Your task to perform on an android device: toggle wifi Image 0: 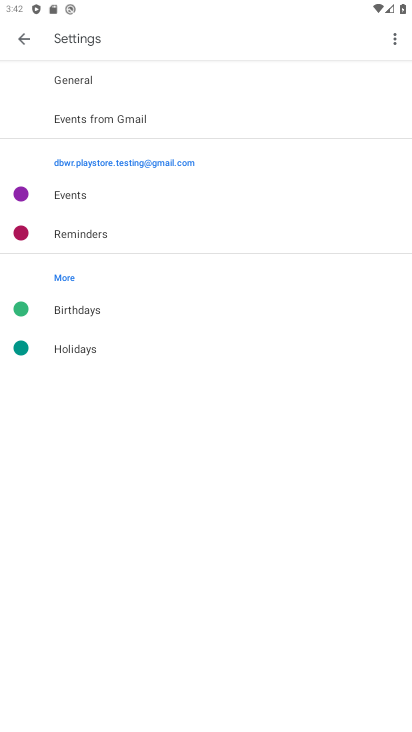
Step 0: press back button
Your task to perform on an android device: toggle wifi Image 1: 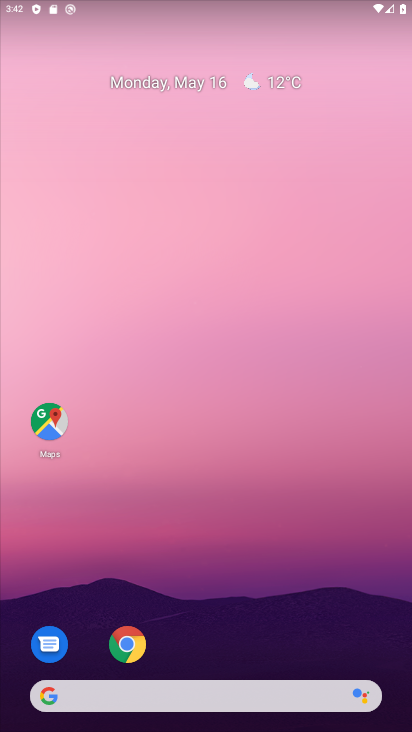
Step 1: drag from (59, 8) to (68, 528)
Your task to perform on an android device: toggle wifi Image 2: 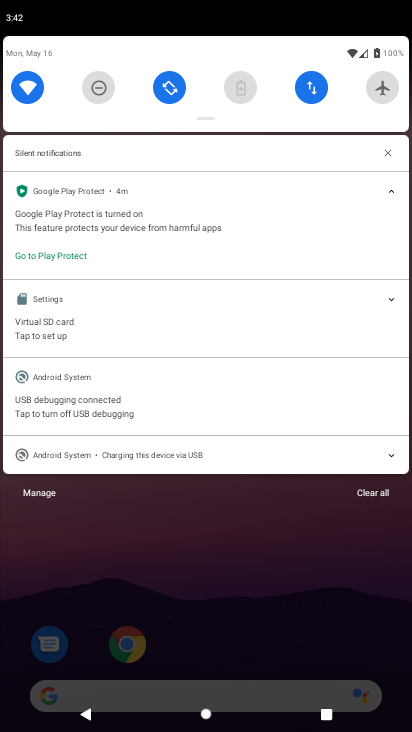
Step 2: click (10, 89)
Your task to perform on an android device: toggle wifi Image 3: 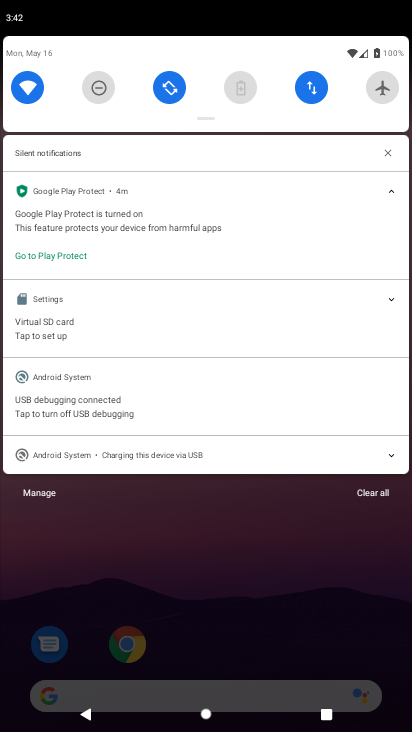
Step 3: click (25, 87)
Your task to perform on an android device: toggle wifi Image 4: 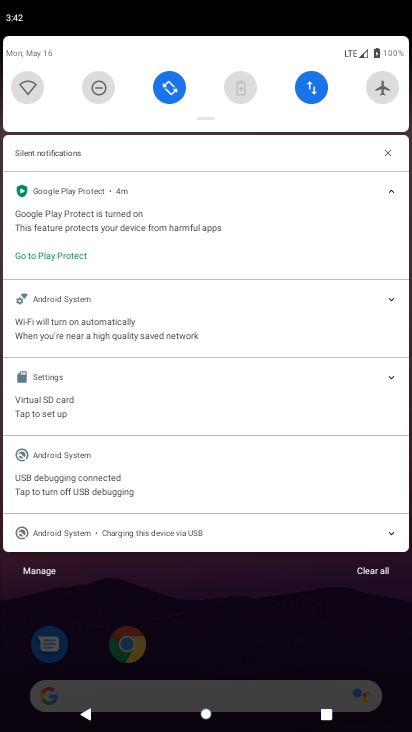
Step 4: task complete